Your task to perform on an android device: Open display settings Image 0: 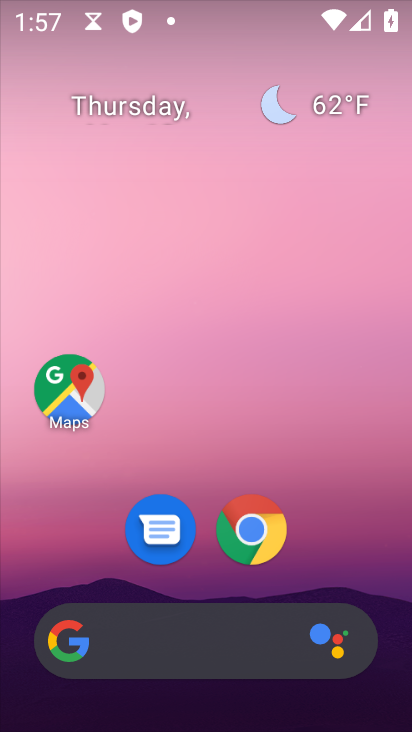
Step 0: drag from (343, 525) to (249, 147)
Your task to perform on an android device: Open display settings Image 1: 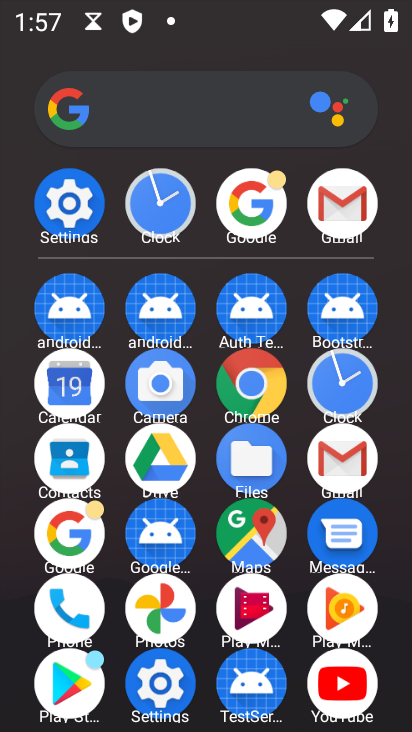
Step 1: click (68, 199)
Your task to perform on an android device: Open display settings Image 2: 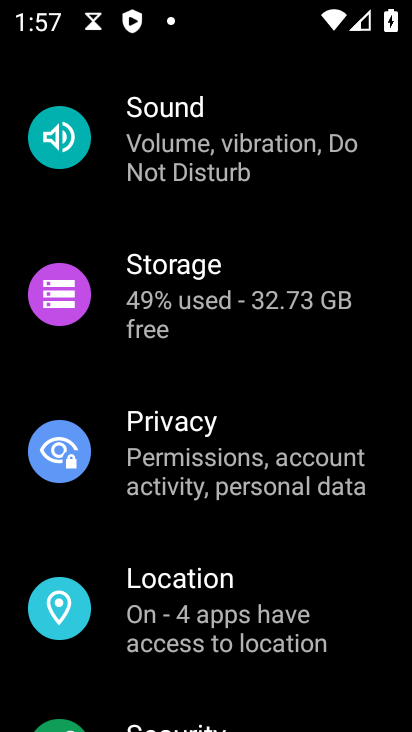
Step 2: drag from (223, 365) to (245, 480)
Your task to perform on an android device: Open display settings Image 3: 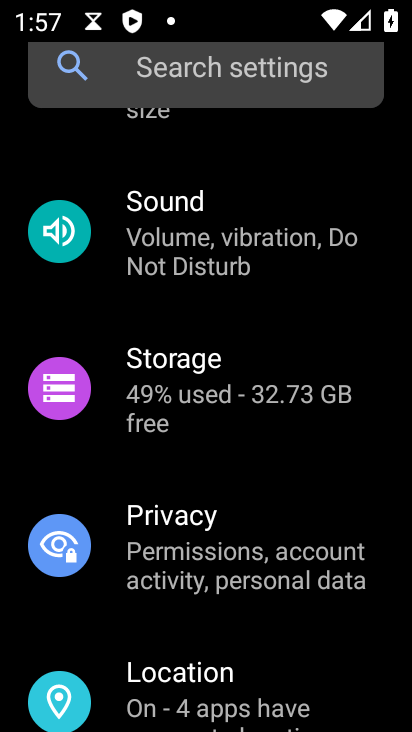
Step 3: drag from (240, 335) to (276, 446)
Your task to perform on an android device: Open display settings Image 4: 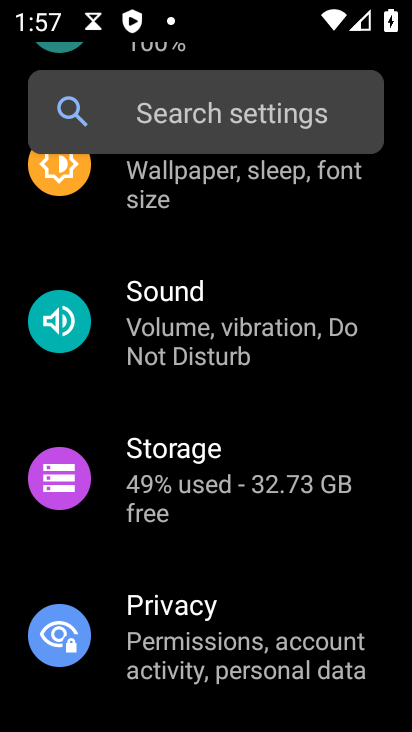
Step 4: drag from (236, 278) to (290, 419)
Your task to perform on an android device: Open display settings Image 5: 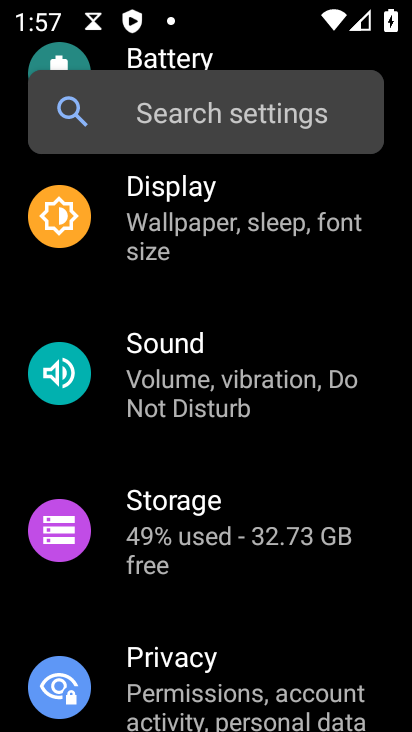
Step 5: click (175, 197)
Your task to perform on an android device: Open display settings Image 6: 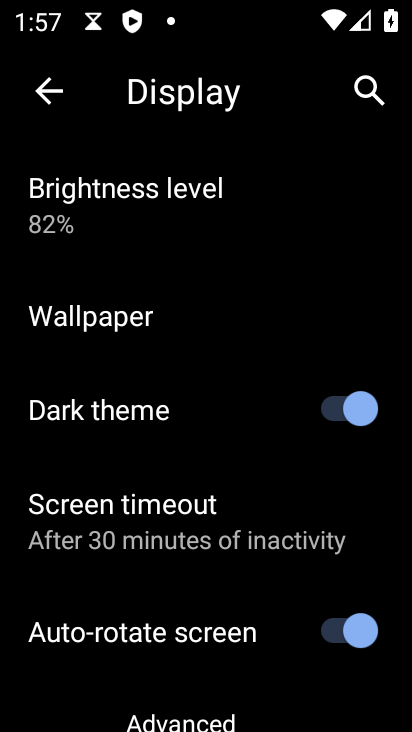
Step 6: task complete